Your task to perform on an android device: change alarm snooze length Image 0: 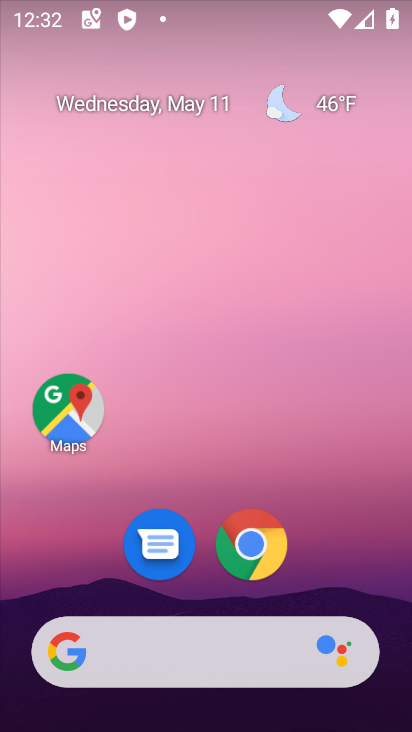
Step 0: drag from (399, 639) to (337, 135)
Your task to perform on an android device: change alarm snooze length Image 1: 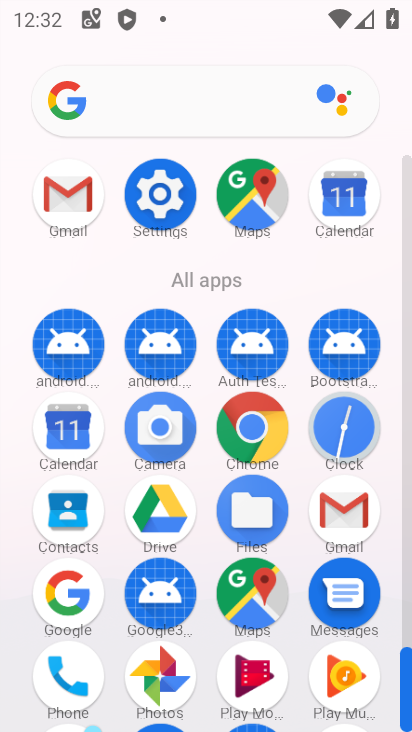
Step 1: click (404, 635)
Your task to perform on an android device: change alarm snooze length Image 2: 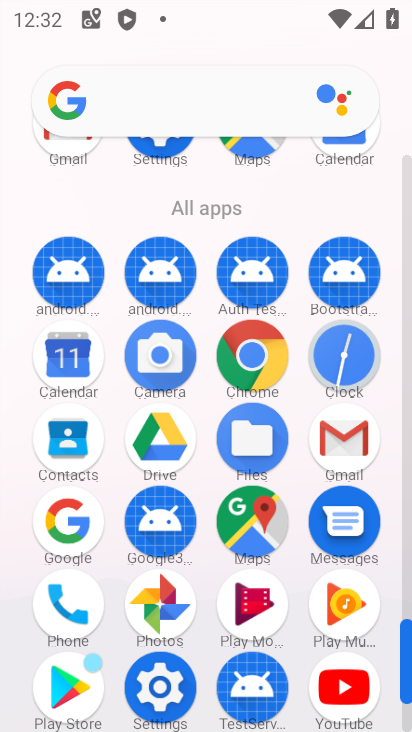
Step 2: click (340, 353)
Your task to perform on an android device: change alarm snooze length Image 3: 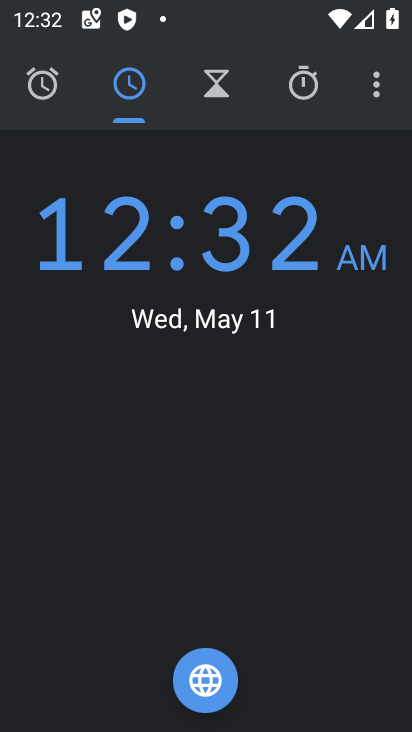
Step 3: click (375, 89)
Your task to perform on an android device: change alarm snooze length Image 4: 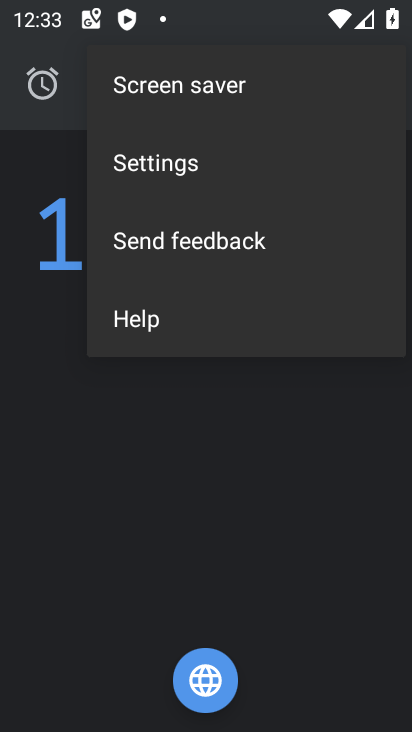
Step 4: click (162, 172)
Your task to perform on an android device: change alarm snooze length Image 5: 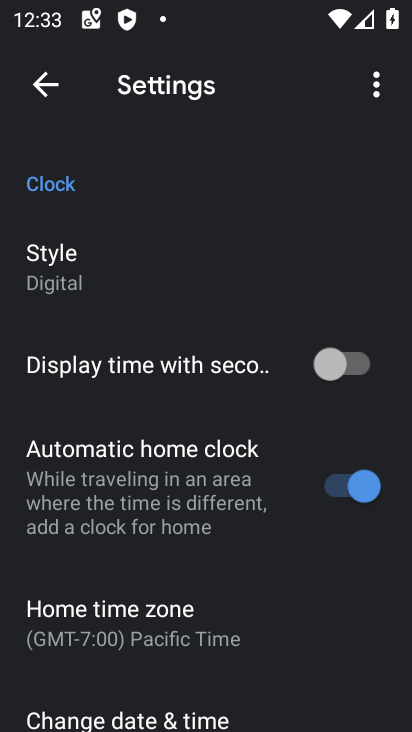
Step 5: drag from (249, 595) to (267, 190)
Your task to perform on an android device: change alarm snooze length Image 6: 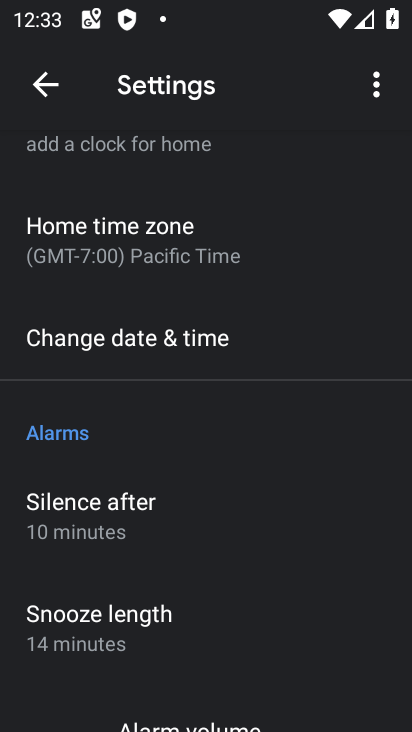
Step 6: drag from (223, 546) to (248, 253)
Your task to perform on an android device: change alarm snooze length Image 7: 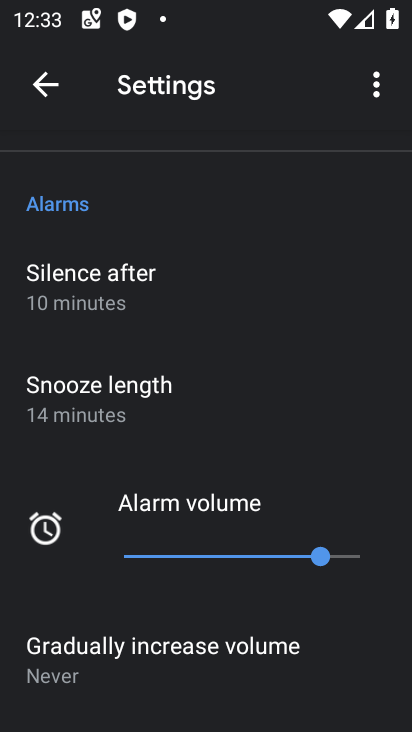
Step 7: click (89, 401)
Your task to perform on an android device: change alarm snooze length Image 8: 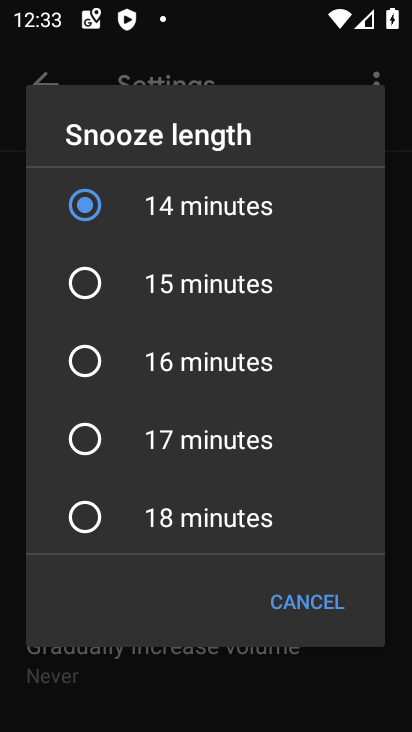
Step 8: click (89, 515)
Your task to perform on an android device: change alarm snooze length Image 9: 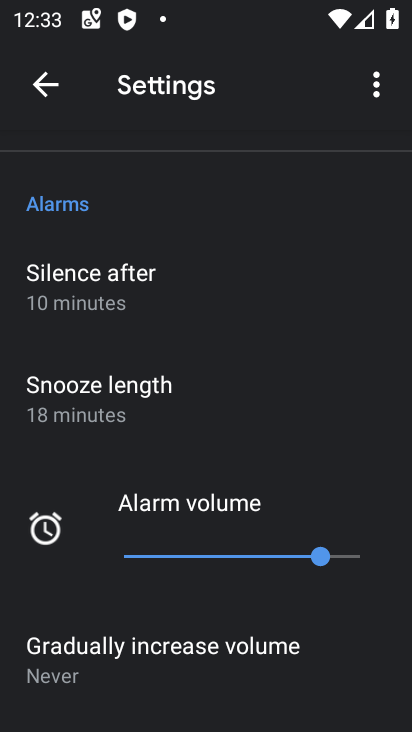
Step 9: task complete